Your task to perform on an android device: Go to calendar. Show me events next week Image 0: 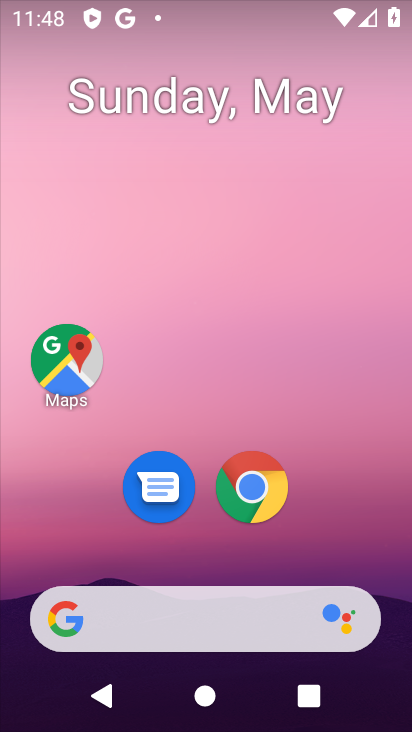
Step 0: drag from (208, 578) to (217, 0)
Your task to perform on an android device: Go to calendar. Show me events next week Image 1: 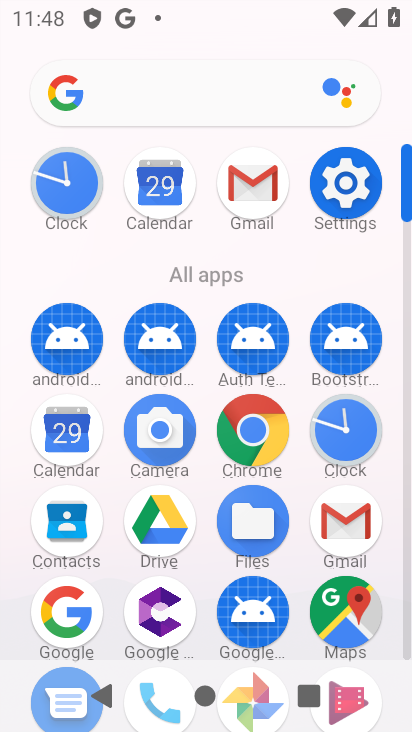
Step 1: click (157, 180)
Your task to perform on an android device: Go to calendar. Show me events next week Image 2: 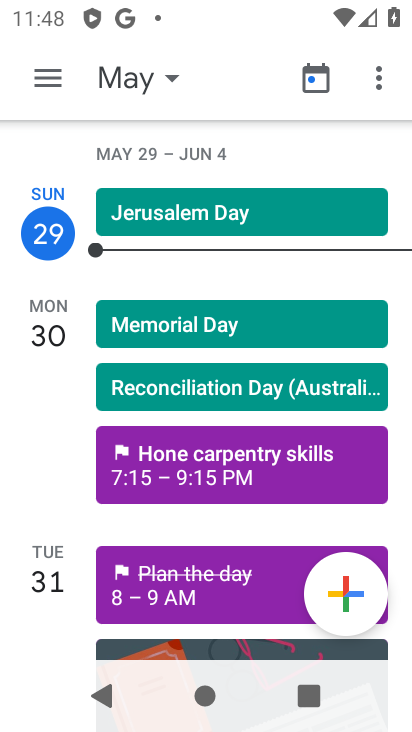
Step 2: click (143, 77)
Your task to perform on an android device: Go to calendar. Show me events next week Image 3: 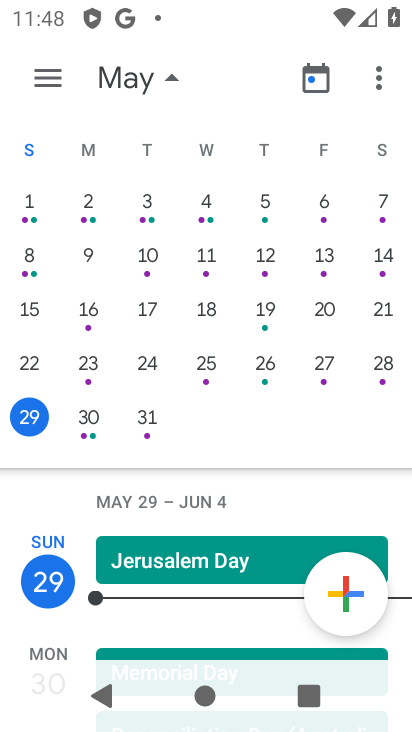
Step 3: drag from (373, 383) to (44, 360)
Your task to perform on an android device: Go to calendar. Show me events next week Image 4: 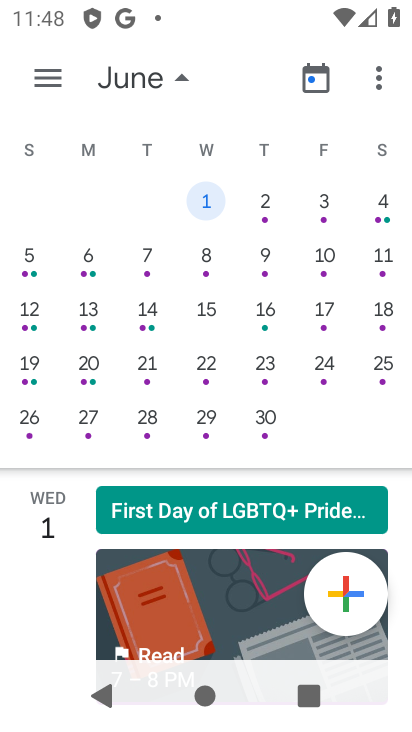
Step 4: click (33, 262)
Your task to perform on an android device: Go to calendar. Show me events next week Image 5: 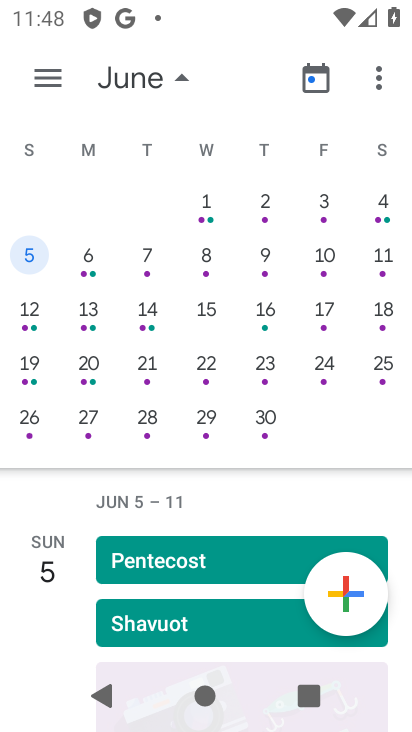
Step 5: task complete